Your task to perform on an android device: toggle improve location accuracy Image 0: 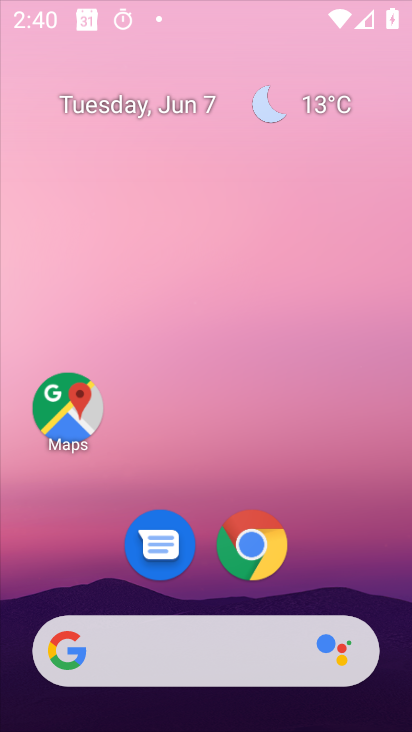
Step 0: press home button
Your task to perform on an android device: toggle improve location accuracy Image 1: 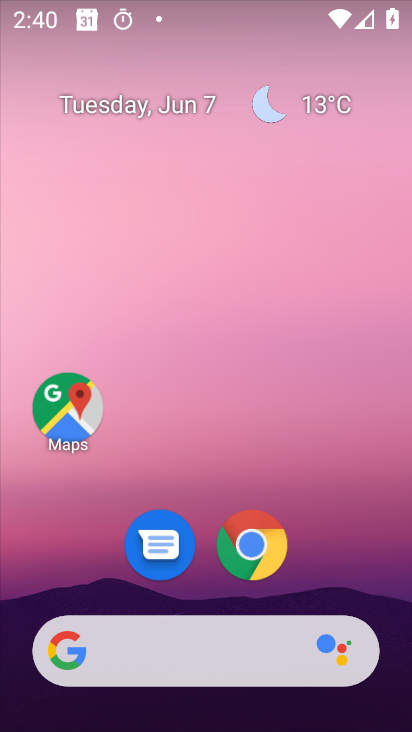
Step 1: drag from (380, 479) to (317, 29)
Your task to perform on an android device: toggle improve location accuracy Image 2: 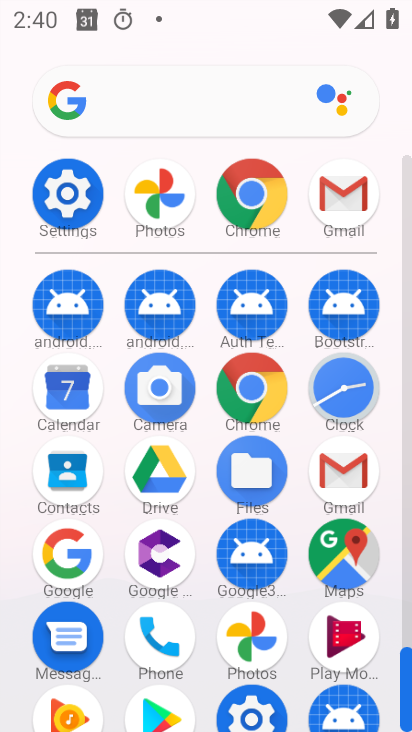
Step 2: click (81, 170)
Your task to perform on an android device: toggle improve location accuracy Image 3: 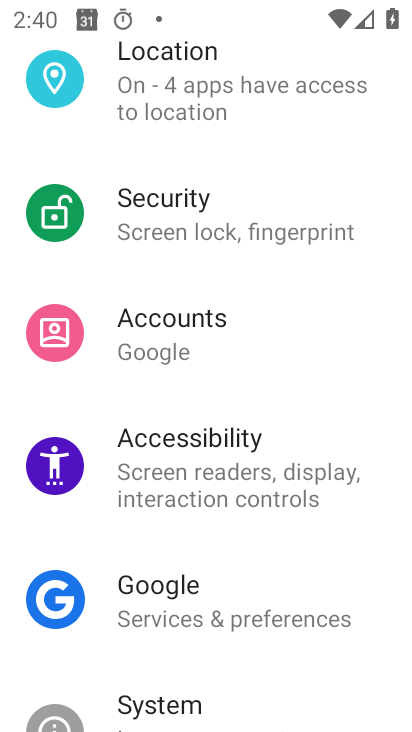
Step 3: click (224, 58)
Your task to perform on an android device: toggle improve location accuracy Image 4: 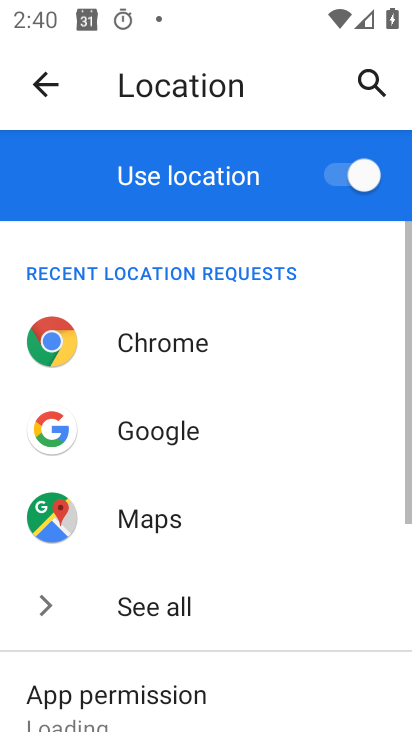
Step 4: drag from (314, 401) to (319, 44)
Your task to perform on an android device: toggle improve location accuracy Image 5: 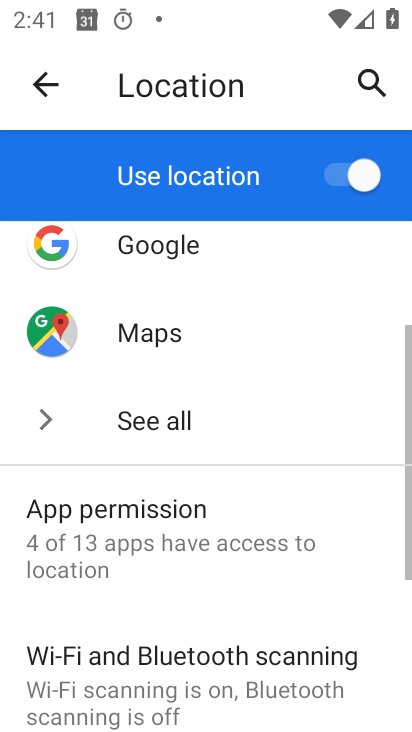
Step 5: drag from (227, 574) to (263, 144)
Your task to perform on an android device: toggle improve location accuracy Image 6: 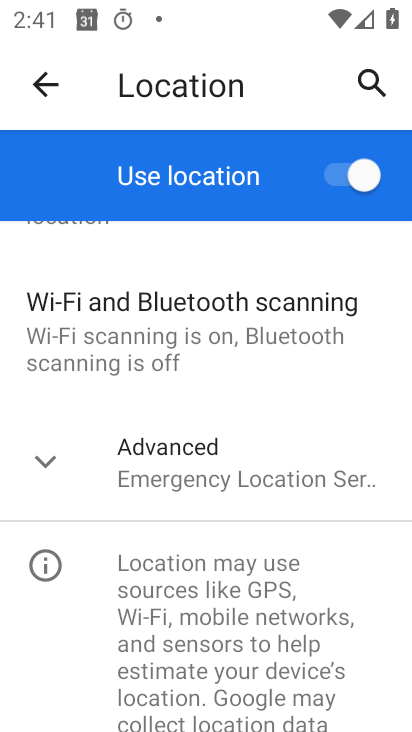
Step 6: click (184, 467)
Your task to perform on an android device: toggle improve location accuracy Image 7: 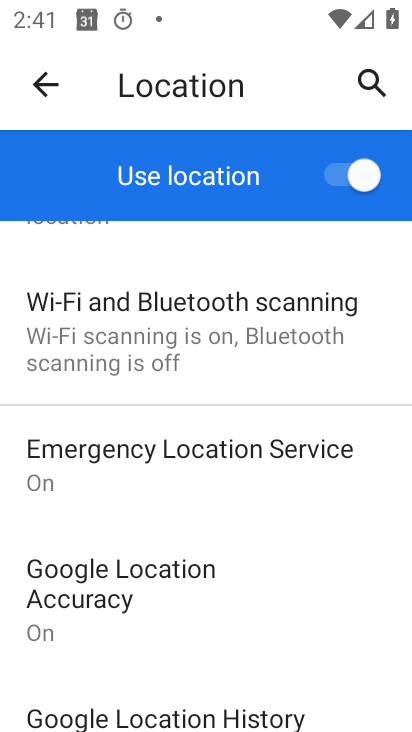
Step 7: click (222, 562)
Your task to perform on an android device: toggle improve location accuracy Image 8: 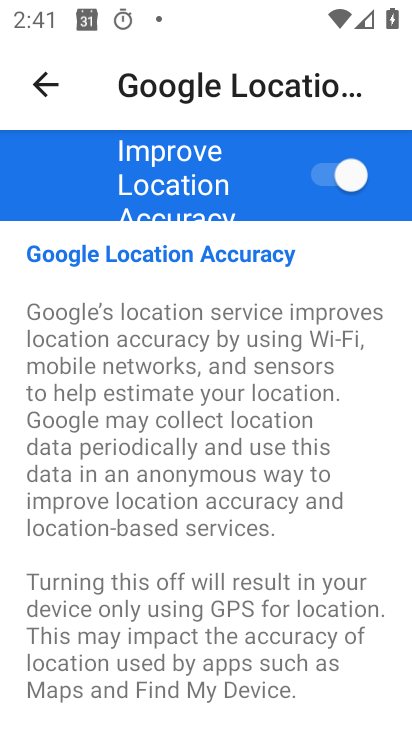
Step 8: click (333, 164)
Your task to perform on an android device: toggle improve location accuracy Image 9: 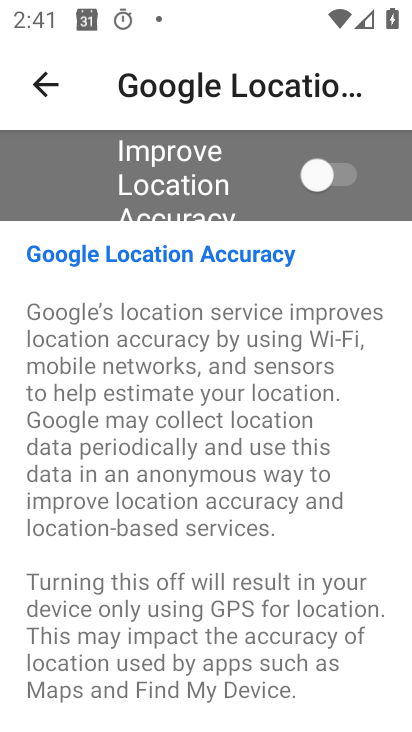
Step 9: task complete